Your task to perform on an android device: read, delete, or share a saved page in the chrome app Image 0: 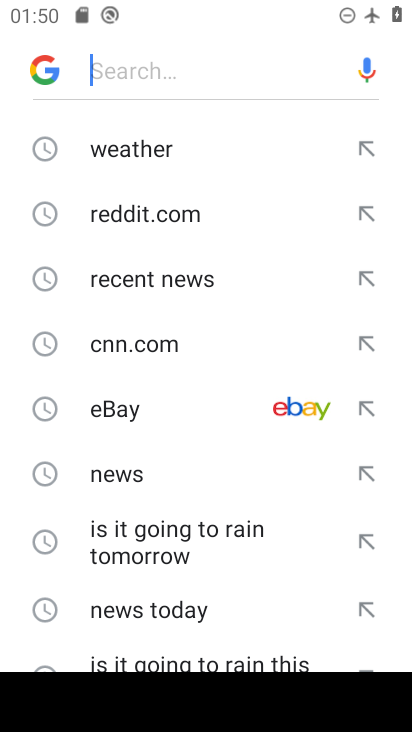
Step 0: press home button
Your task to perform on an android device: read, delete, or share a saved page in the chrome app Image 1: 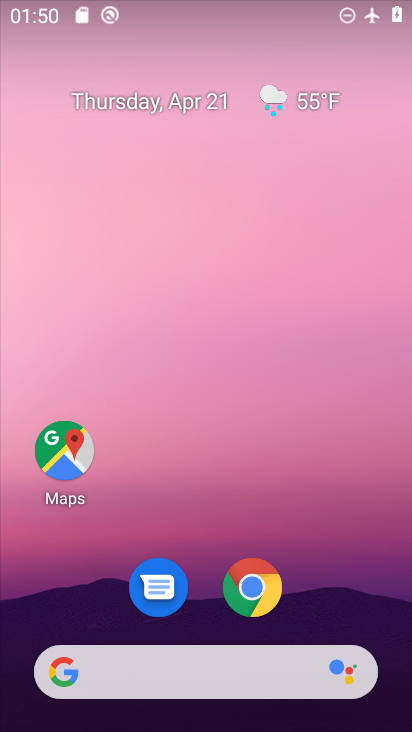
Step 1: click (258, 586)
Your task to perform on an android device: read, delete, or share a saved page in the chrome app Image 2: 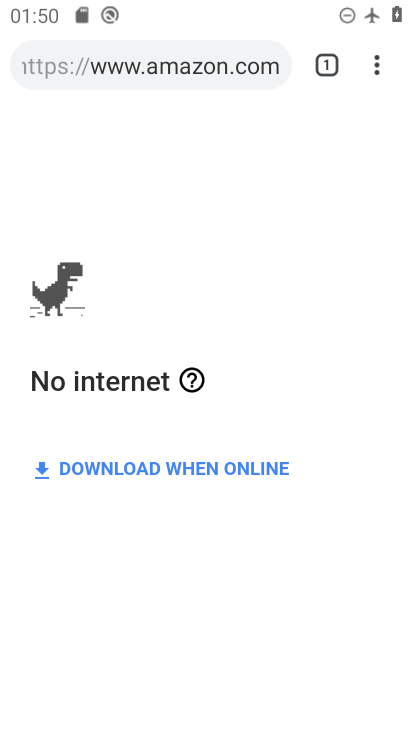
Step 2: click (378, 69)
Your task to perform on an android device: read, delete, or share a saved page in the chrome app Image 3: 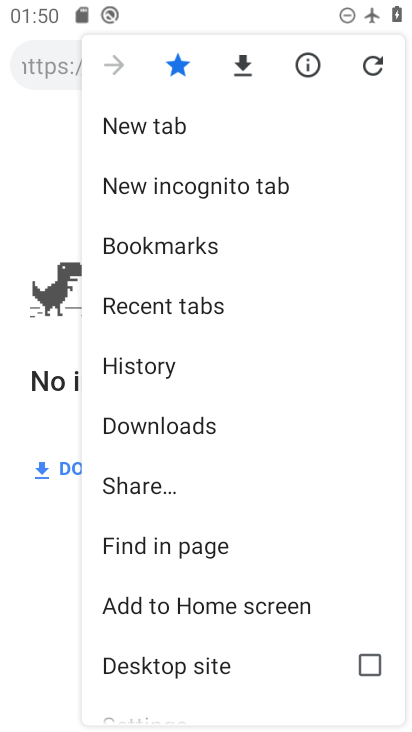
Step 3: click (138, 431)
Your task to perform on an android device: read, delete, or share a saved page in the chrome app Image 4: 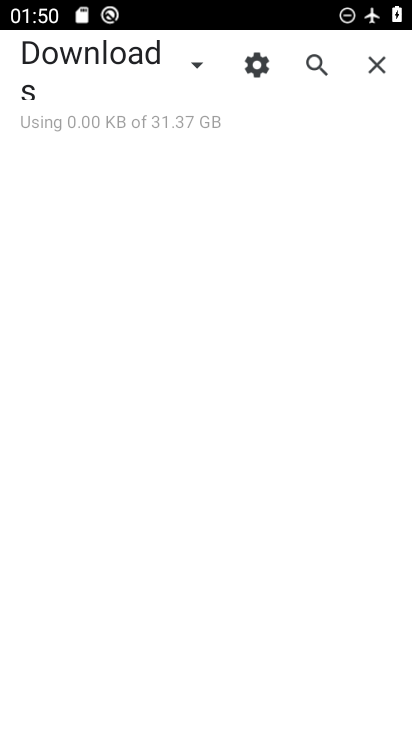
Step 4: click (189, 59)
Your task to perform on an android device: read, delete, or share a saved page in the chrome app Image 5: 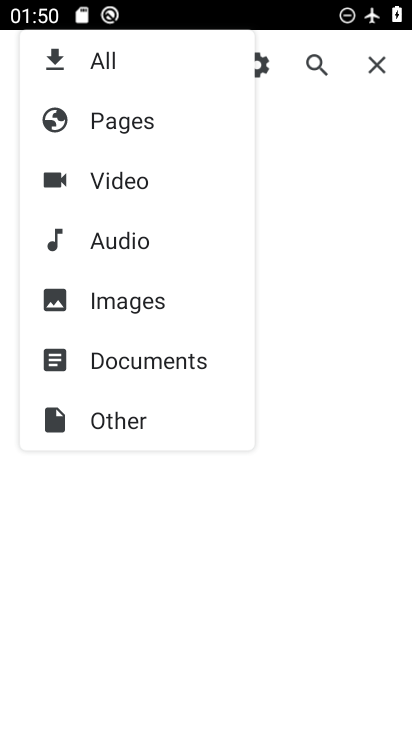
Step 5: click (118, 127)
Your task to perform on an android device: read, delete, or share a saved page in the chrome app Image 6: 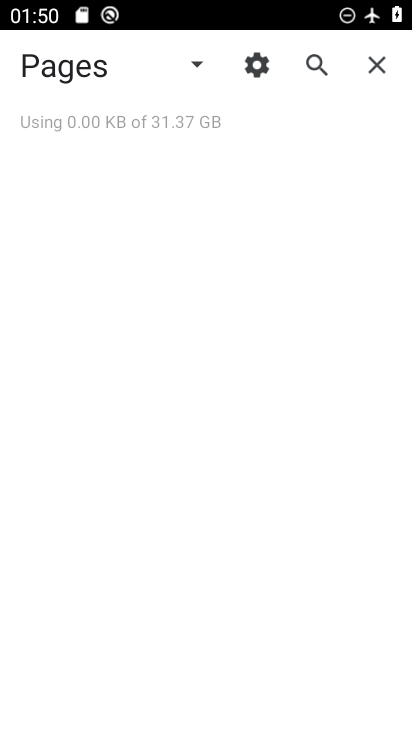
Step 6: task complete